Your task to perform on an android device: Open calendar and show me the second week of next month Image 0: 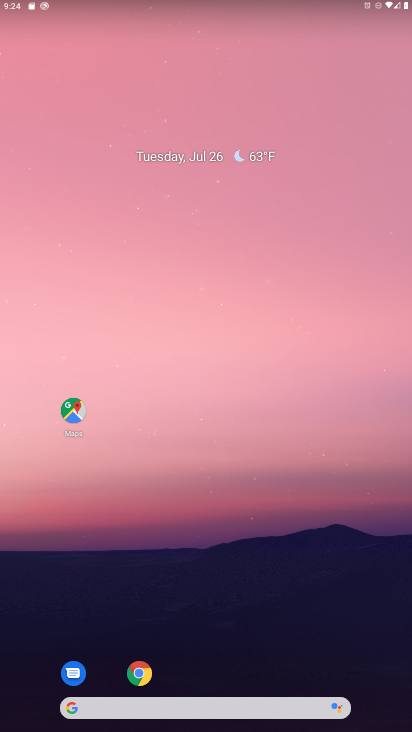
Step 0: drag from (294, 547) to (162, 70)
Your task to perform on an android device: Open calendar and show me the second week of next month Image 1: 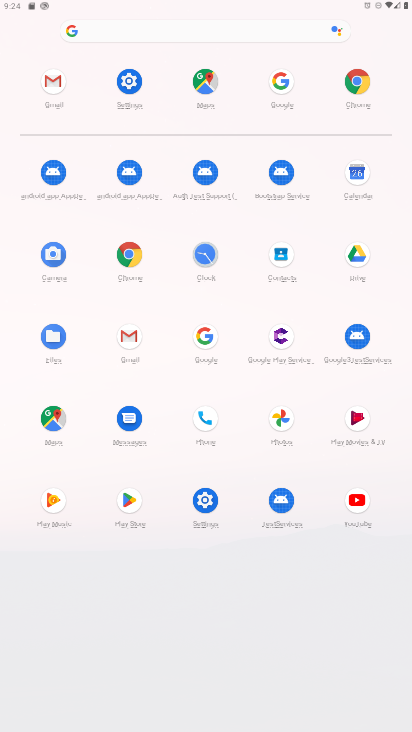
Step 1: click (346, 163)
Your task to perform on an android device: Open calendar and show me the second week of next month Image 2: 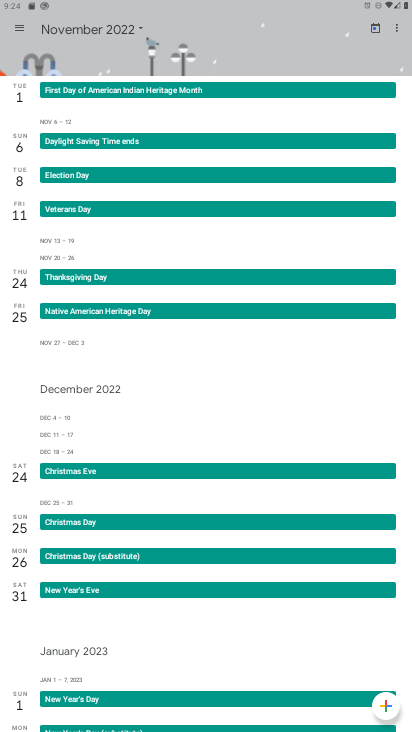
Step 2: click (81, 38)
Your task to perform on an android device: Open calendar and show me the second week of next month Image 3: 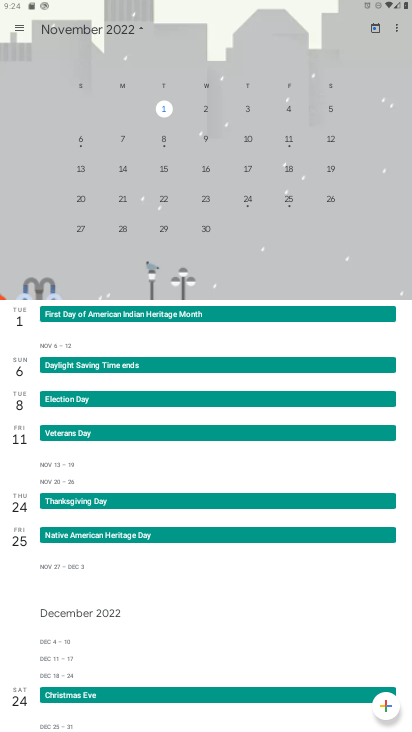
Step 3: drag from (350, 148) to (32, 158)
Your task to perform on an android device: Open calendar and show me the second week of next month Image 4: 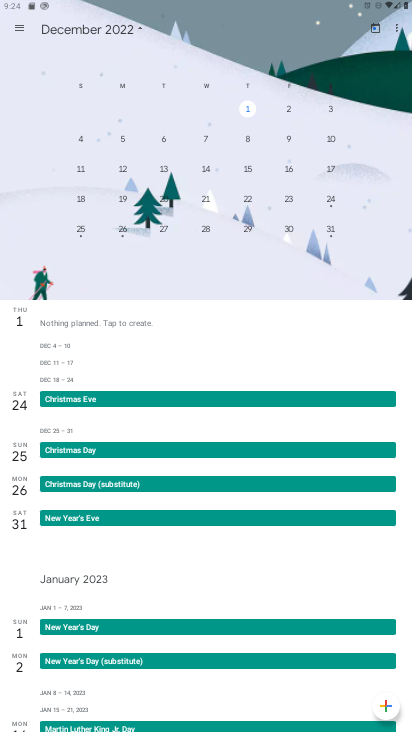
Step 4: click (79, 166)
Your task to perform on an android device: Open calendar and show me the second week of next month Image 5: 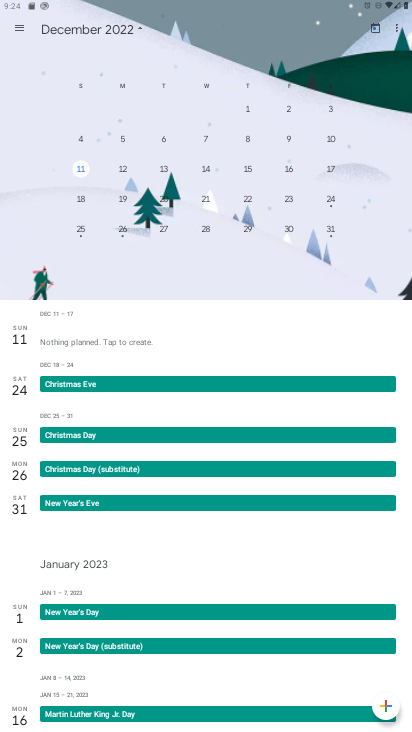
Step 5: task complete